Your task to perform on an android device: open wifi settings Image 0: 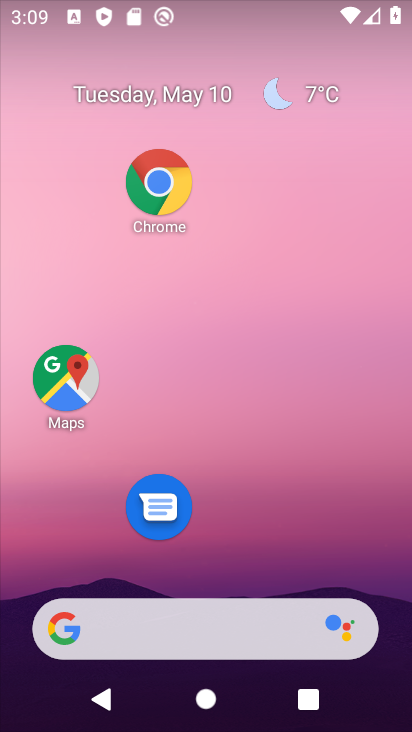
Step 0: click (174, 174)
Your task to perform on an android device: open wifi settings Image 1: 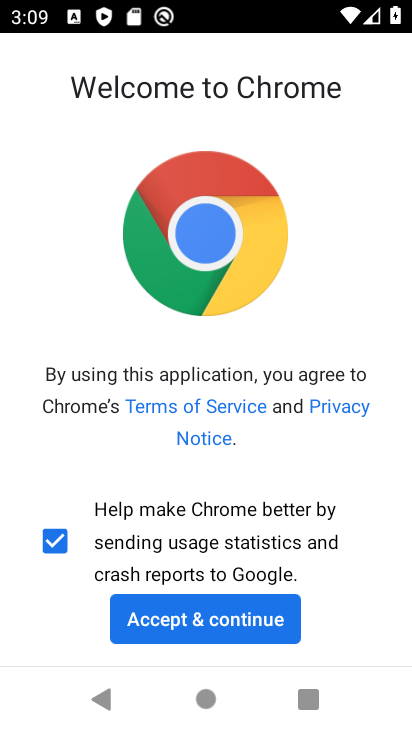
Step 1: click (175, 624)
Your task to perform on an android device: open wifi settings Image 2: 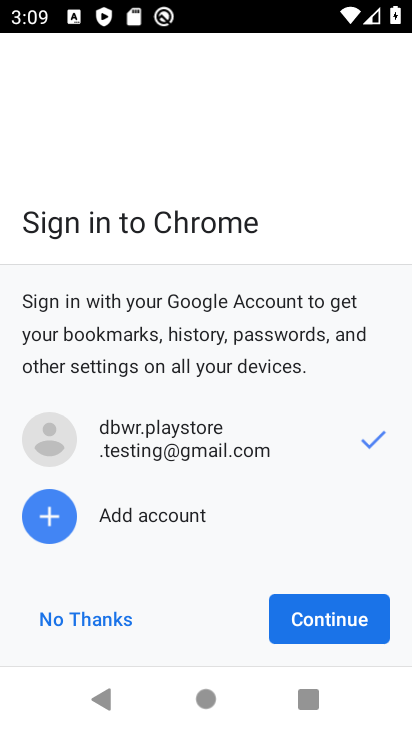
Step 2: click (287, 630)
Your task to perform on an android device: open wifi settings Image 3: 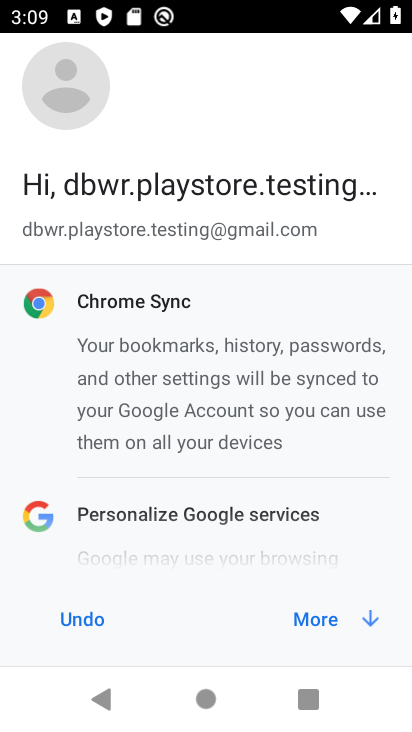
Step 3: click (287, 630)
Your task to perform on an android device: open wifi settings Image 4: 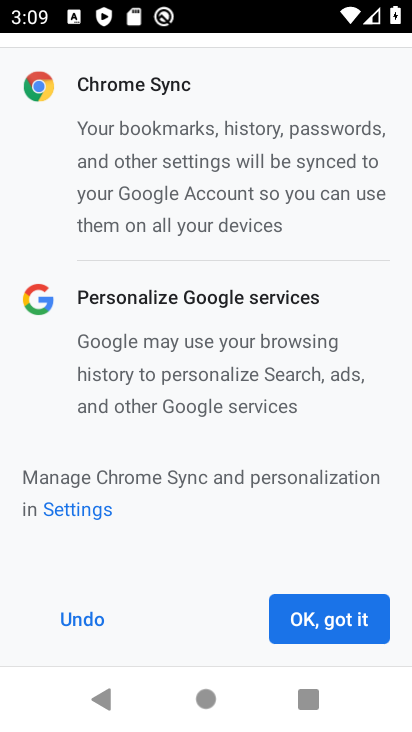
Step 4: click (287, 630)
Your task to perform on an android device: open wifi settings Image 5: 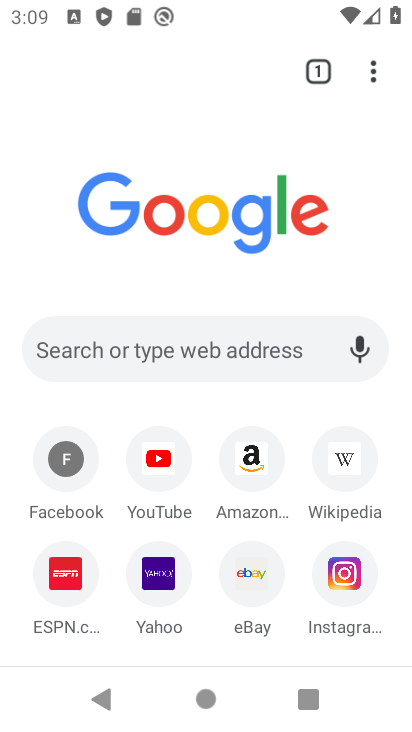
Step 5: task complete